Your task to perform on an android device: Open internet settings Image 0: 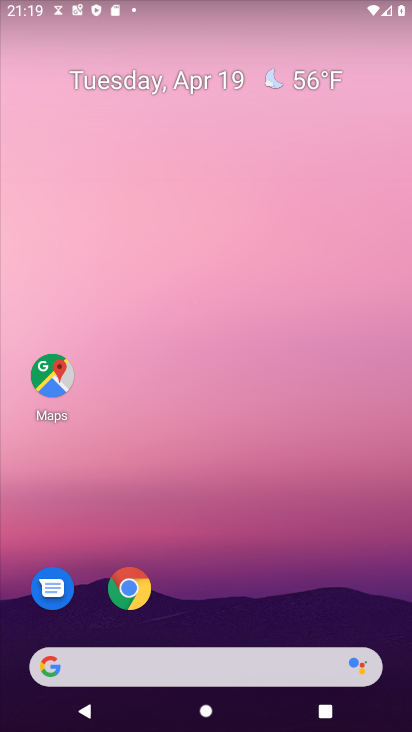
Step 0: drag from (221, 629) to (264, 61)
Your task to perform on an android device: Open internet settings Image 1: 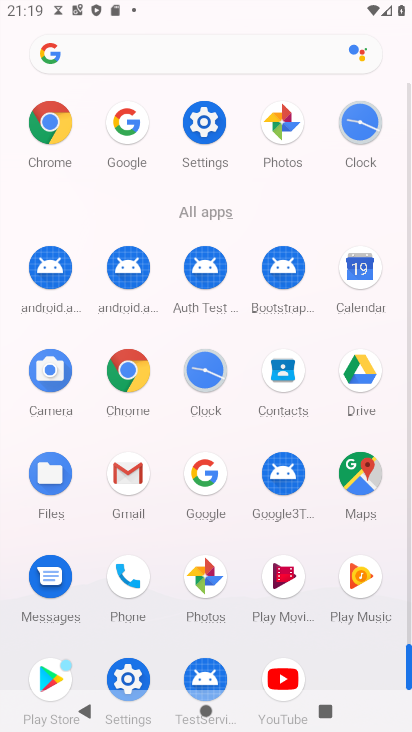
Step 1: click (205, 123)
Your task to perform on an android device: Open internet settings Image 2: 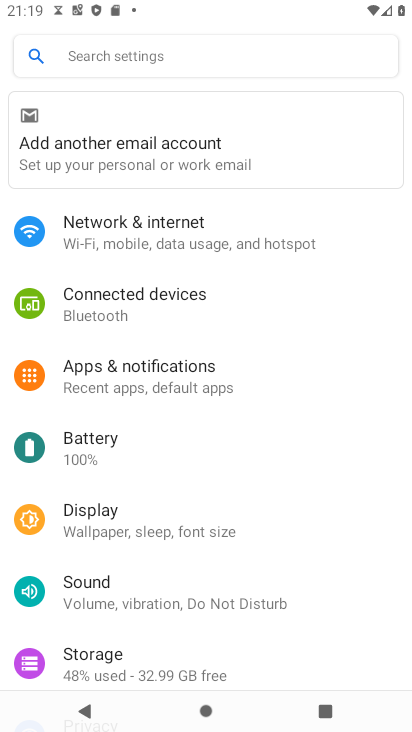
Step 2: click (177, 219)
Your task to perform on an android device: Open internet settings Image 3: 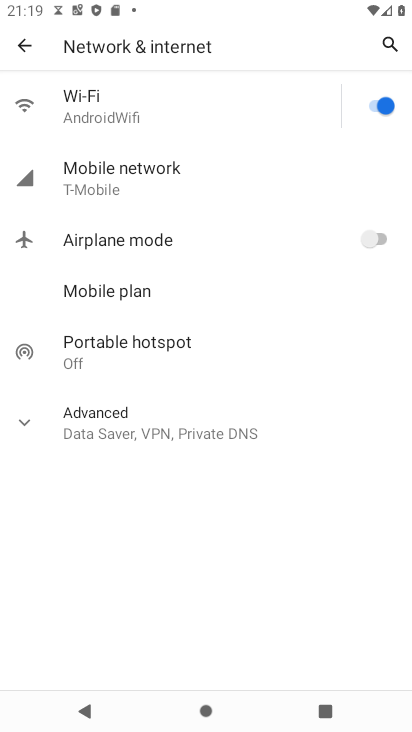
Step 3: task complete